Your task to perform on an android device: Go to ESPN.com Image 0: 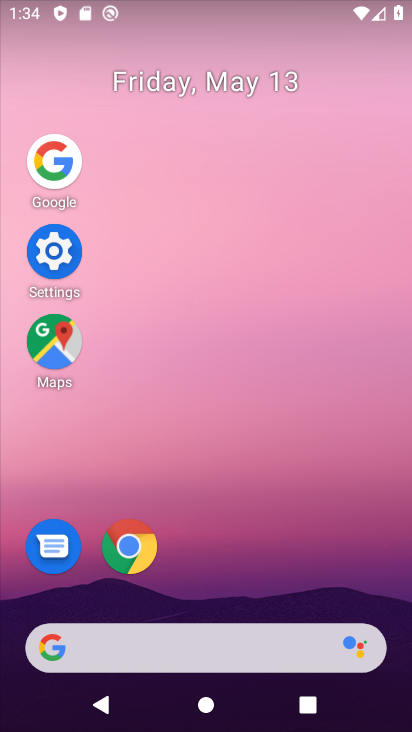
Step 0: click (140, 531)
Your task to perform on an android device: Go to ESPN.com Image 1: 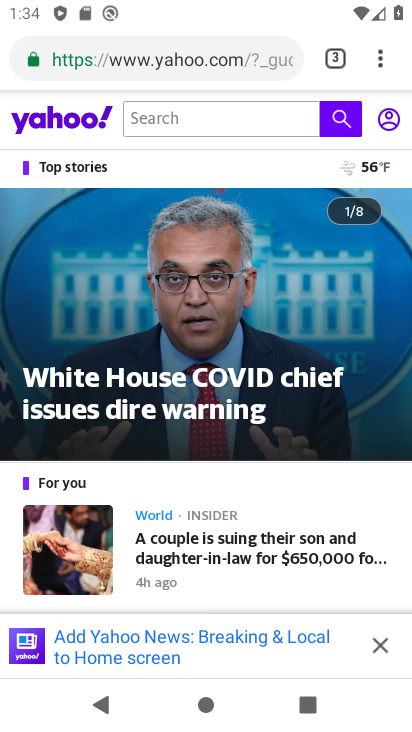
Step 1: click (334, 56)
Your task to perform on an android device: Go to ESPN.com Image 2: 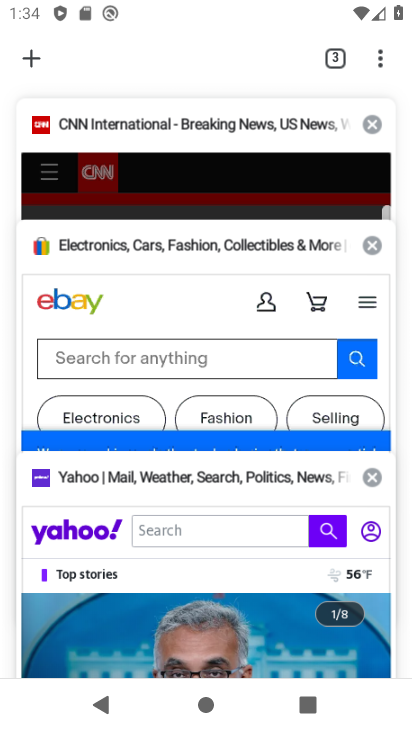
Step 2: click (22, 53)
Your task to perform on an android device: Go to ESPN.com Image 3: 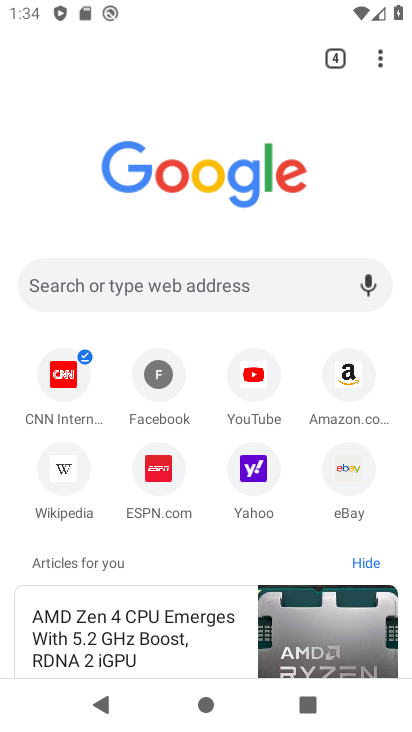
Step 3: click (154, 476)
Your task to perform on an android device: Go to ESPN.com Image 4: 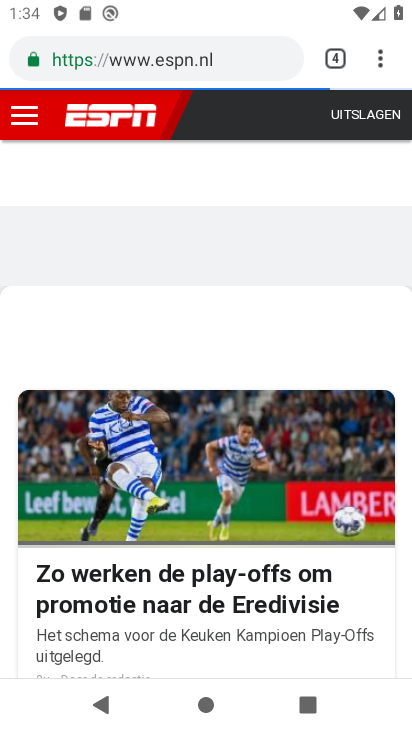
Step 4: task complete